Your task to perform on an android device: What's the weather going to be tomorrow? Image 0: 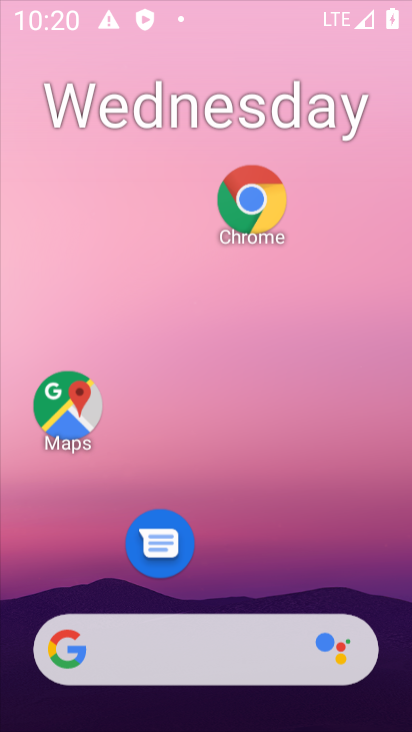
Step 0: click (201, 26)
Your task to perform on an android device: What's the weather going to be tomorrow? Image 1: 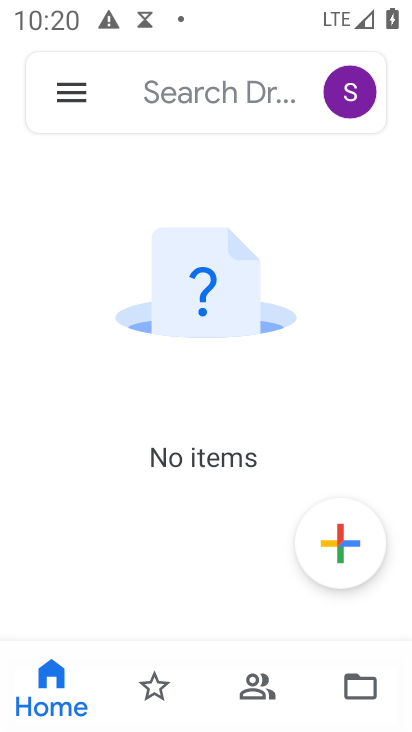
Step 1: press home button
Your task to perform on an android device: What's the weather going to be tomorrow? Image 2: 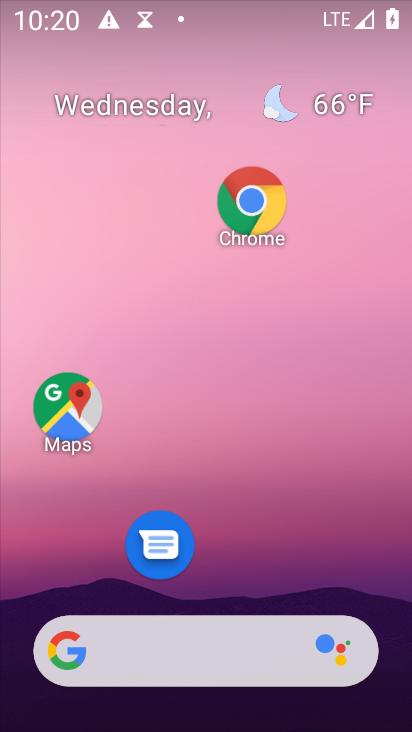
Step 2: click (203, 637)
Your task to perform on an android device: What's the weather going to be tomorrow? Image 3: 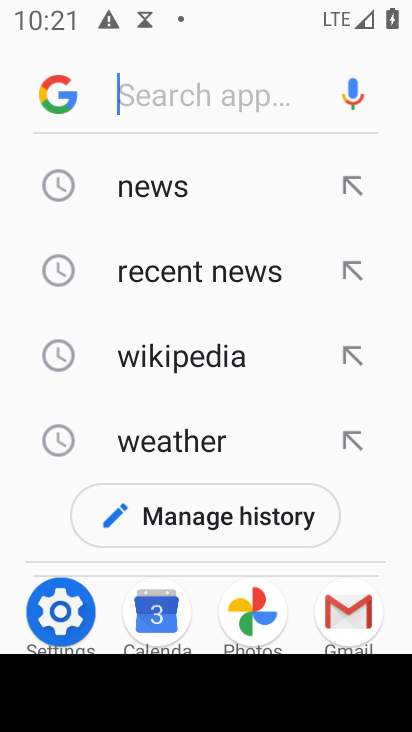
Step 3: type "what's the weather going to be tomorrow"
Your task to perform on an android device: What's the weather going to be tomorrow? Image 4: 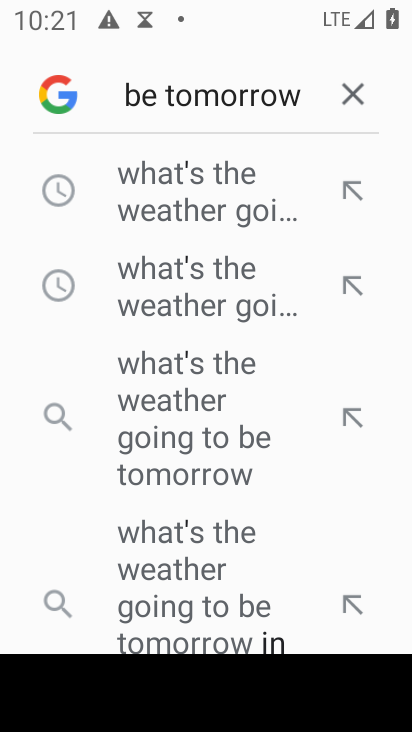
Step 4: click (193, 442)
Your task to perform on an android device: What's the weather going to be tomorrow? Image 5: 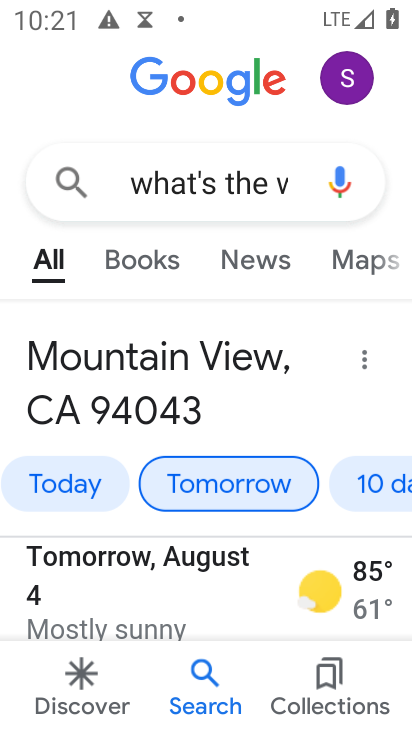
Step 5: task complete